Your task to perform on an android device: refresh tabs in the chrome app Image 0: 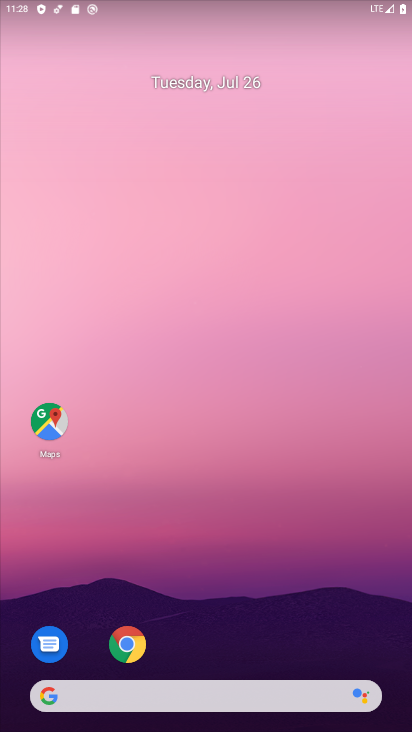
Step 0: click (137, 649)
Your task to perform on an android device: refresh tabs in the chrome app Image 1: 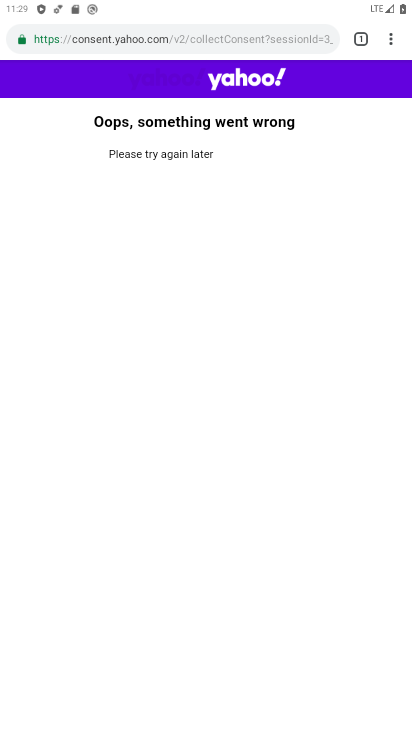
Step 1: click (393, 38)
Your task to perform on an android device: refresh tabs in the chrome app Image 2: 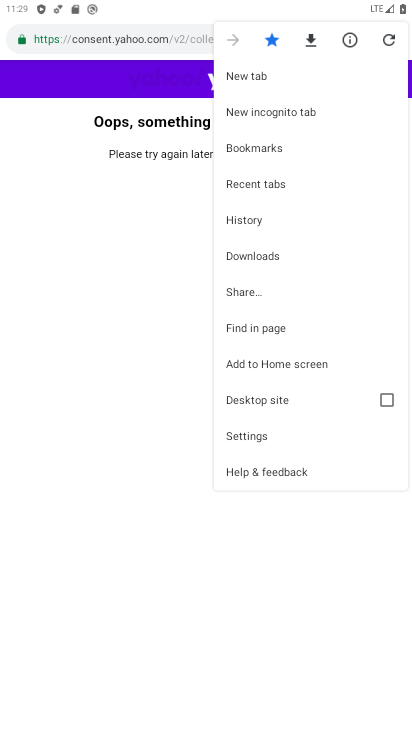
Step 2: click (392, 39)
Your task to perform on an android device: refresh tabs in the chrome app Image 3: 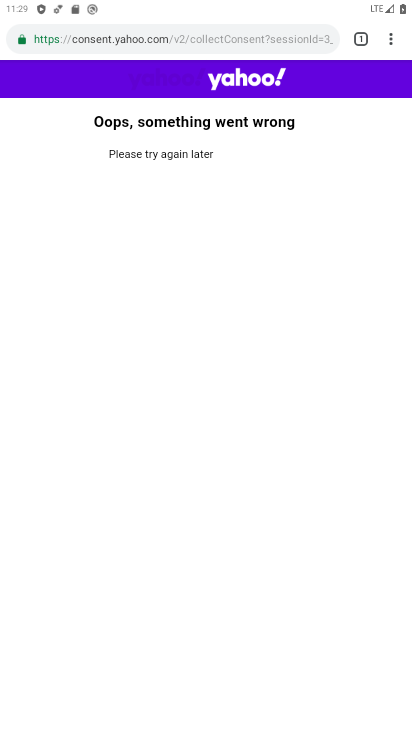
Step 3: task complete